Your task to perform on an android device: open app "Google News" Image 0: 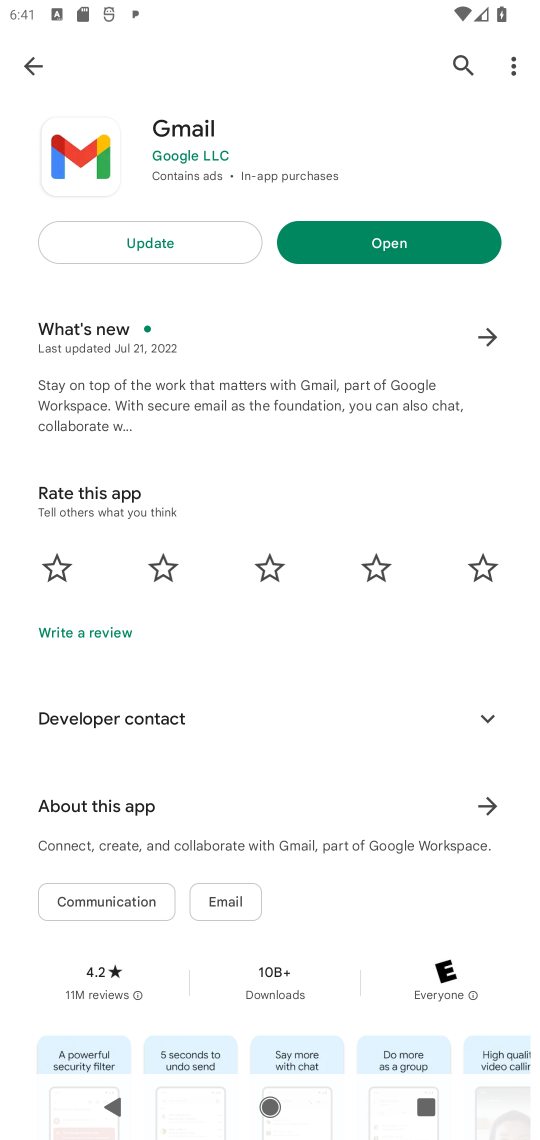
Step 0: click (31, 68)
Your task to perform on an android device: open app "Google News" Image 1: 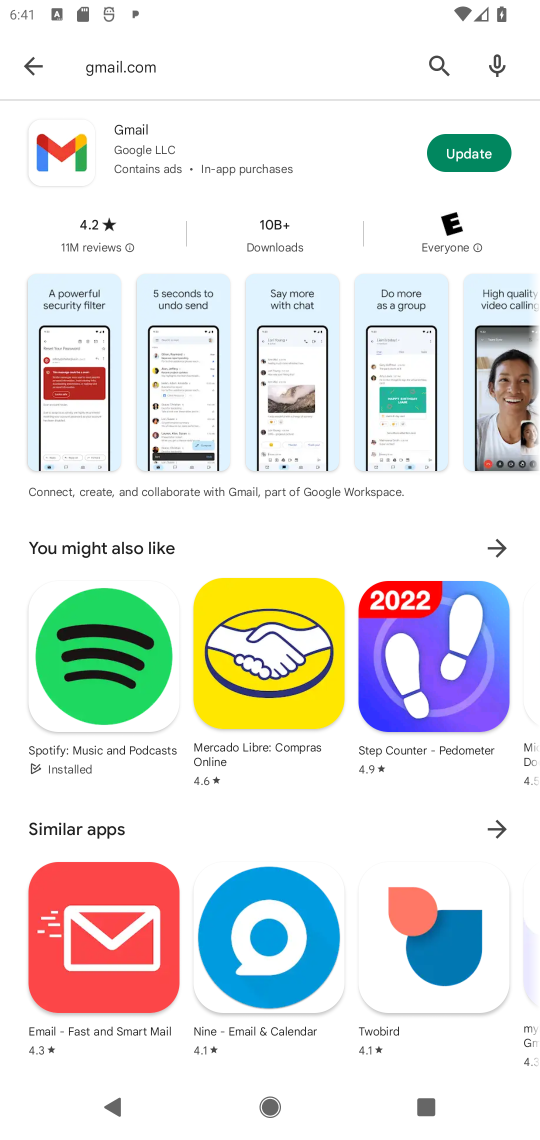
Step 1: click (20, 58)
Your task to perform on an android device: open app "Google News" Image 2: 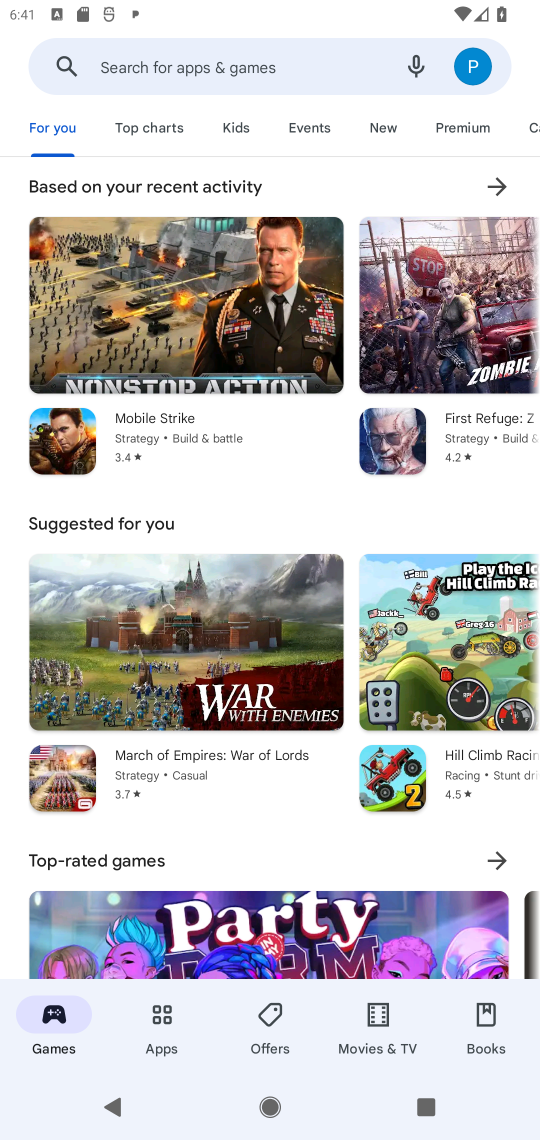
Step 2: click (125, 57)
Your task to perform on an android device: open app "Google News" Image 3: 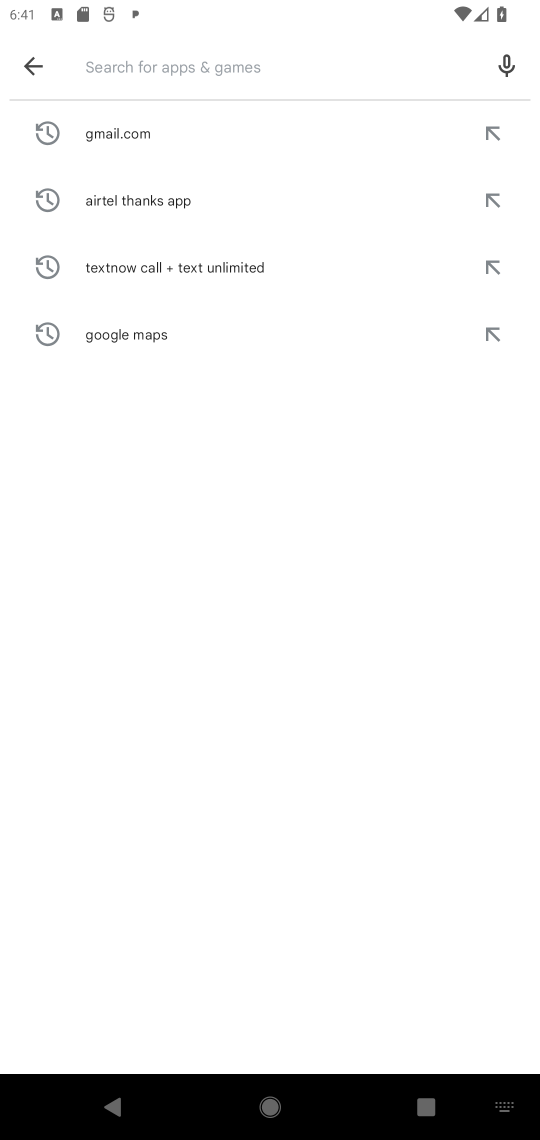
Step 3: type "Google News"
Your task to perform on an android device: open app "Google News" Image 4: 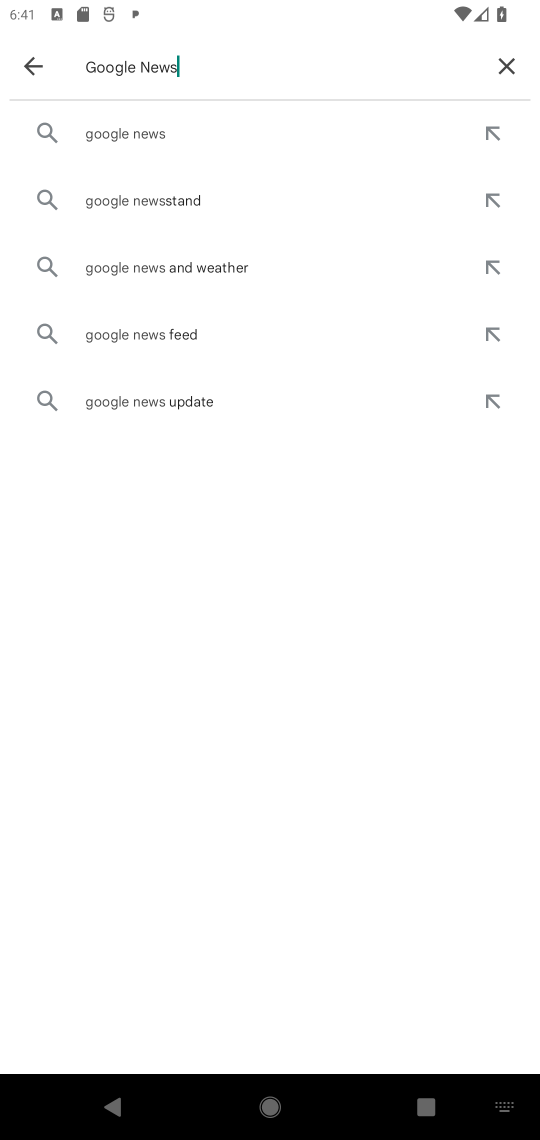
Step 4: click (127, 134)
Your task to perform on an android device: open app "Google News" Image 5: 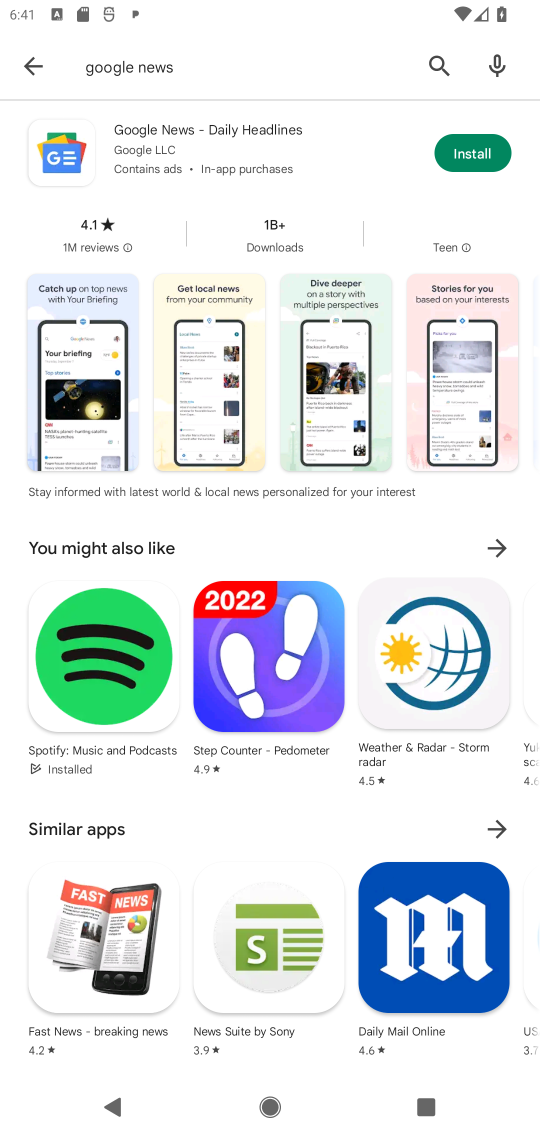
Step 5: click (473, 162)
Your task to perform on an android device: open app "Google News" Image 6: 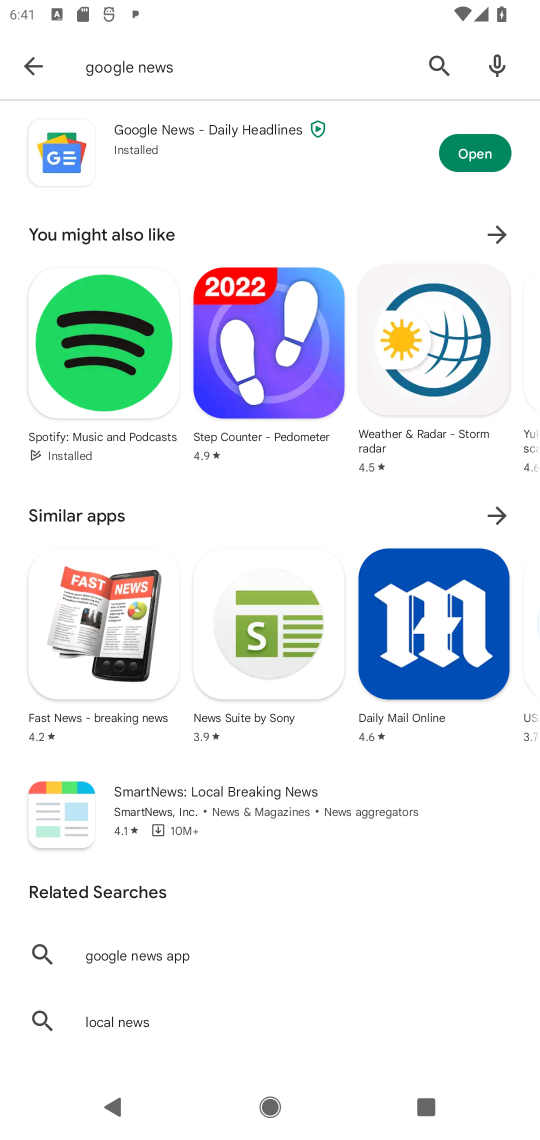
Step 6: click (473, 162)
Your task to perform on an android device: open app "Google News" Image 7: 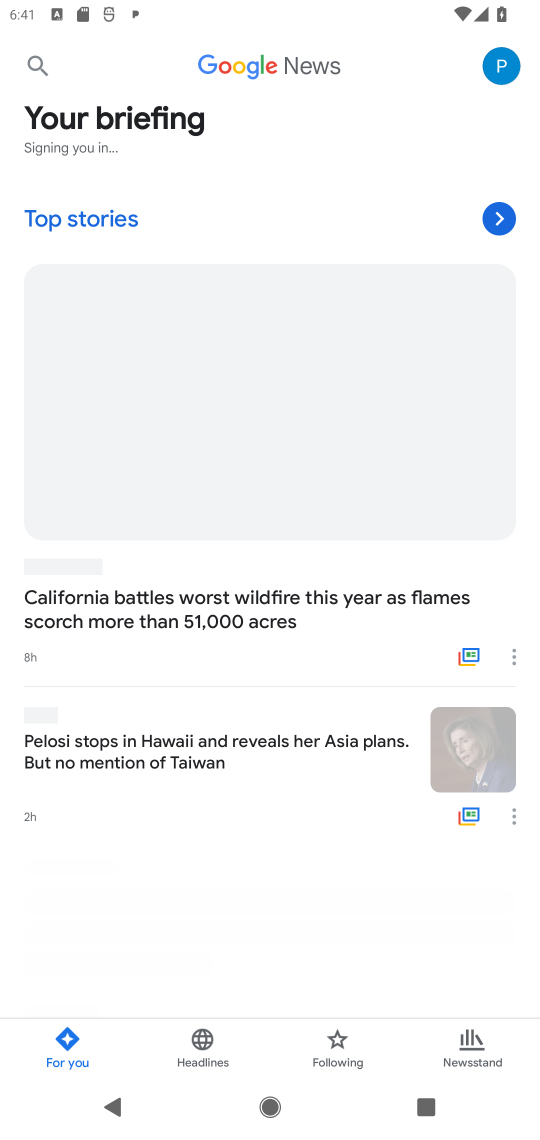
Step 7: task complete